Your task to perform on an android device: What's the weather going to be tomorrow? Image 0: 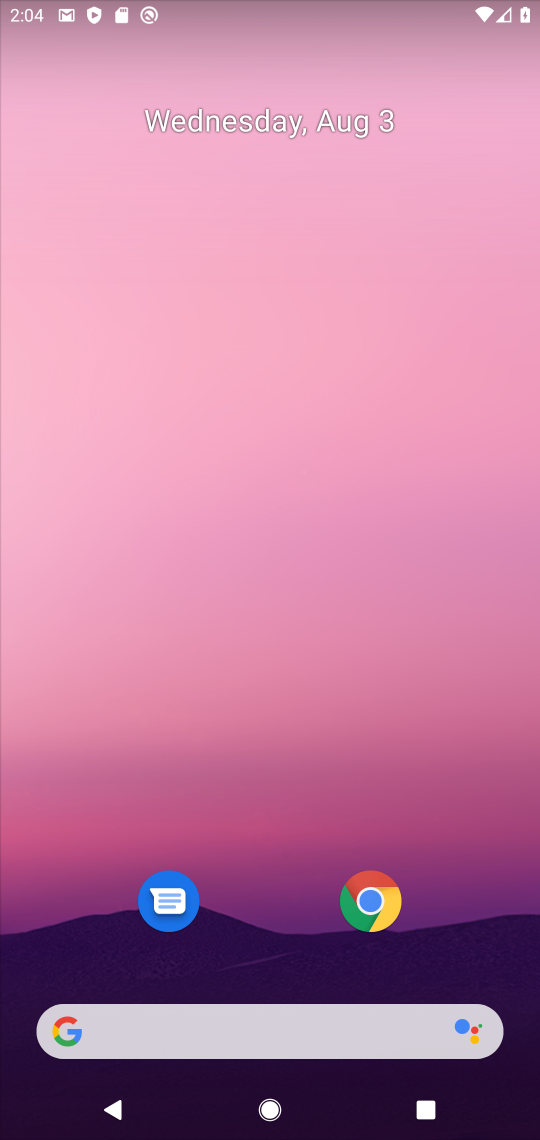
Step 0: drag from (267, 579) to (291, 376)
Your task to perform on an android device: What's the weather going to be tomorrow? Image 1: 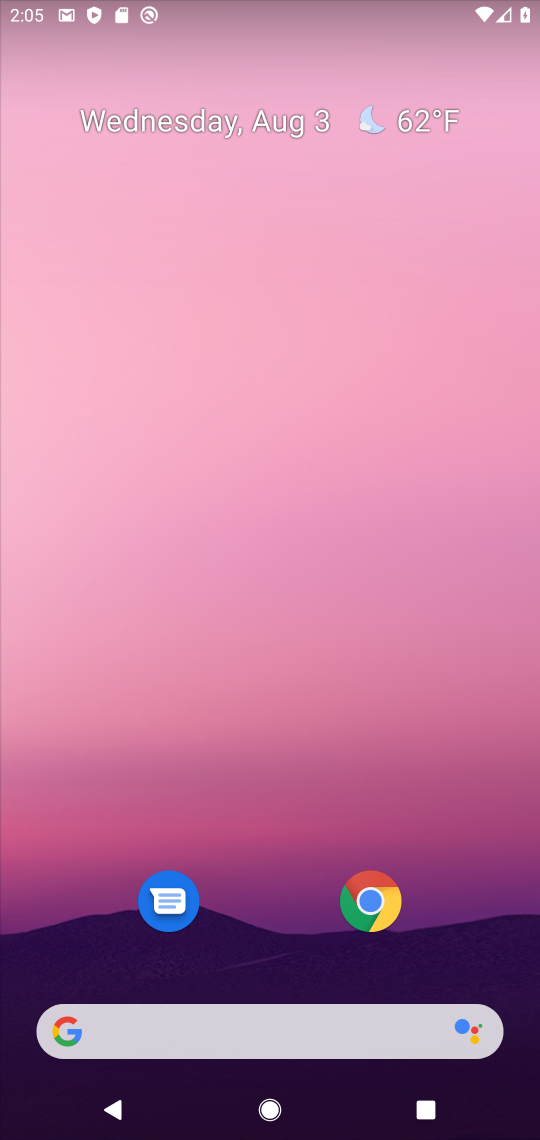
Step 1: click (391, 899)
Your task to perform on an android device: What's the weather going to be tomorrow? Image 2: 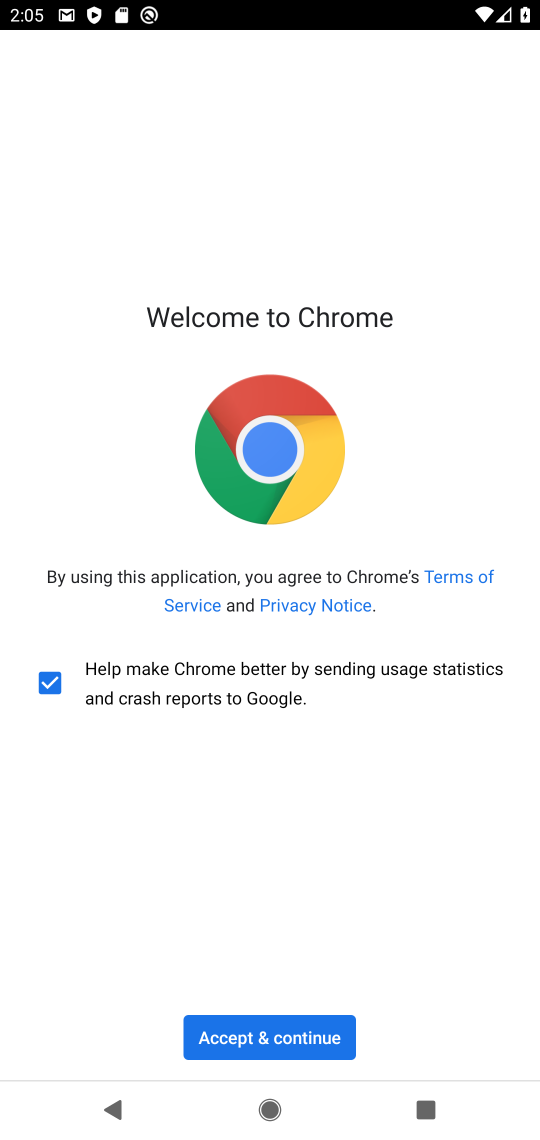
Step 2: click (270, 1028)
Your task to perform on an android device: What's the weather going to be tomorrow? Image 3: 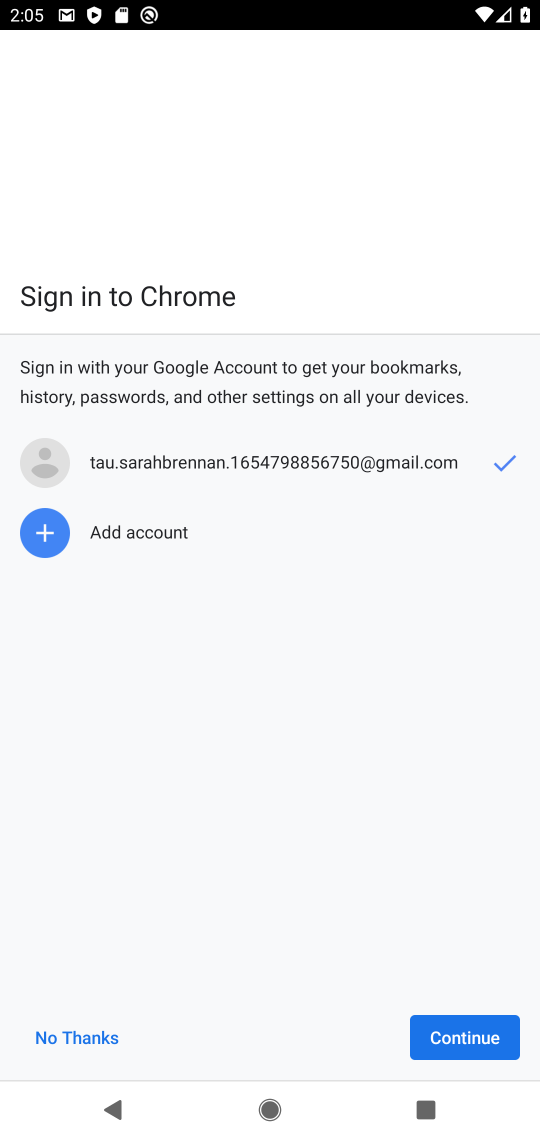
Step 3: click (430, 1024)
Your task to perform on an android device: What's the weather going to be tomorrow? Image 4: 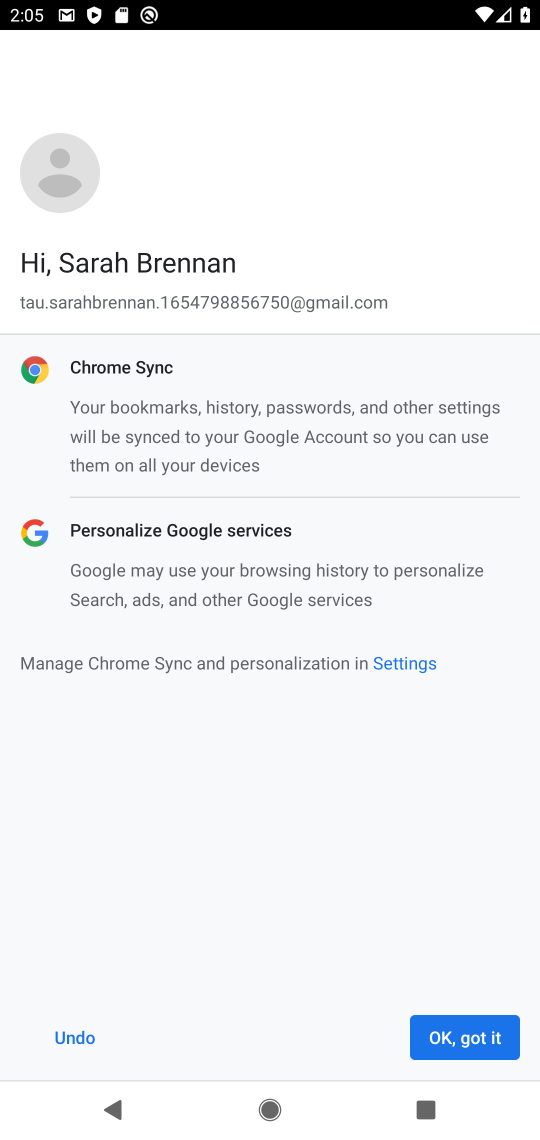
Step 4: click (438, 1034)
Your task to perform on an android device: What's the weather going to be tomorrow? Image 5: 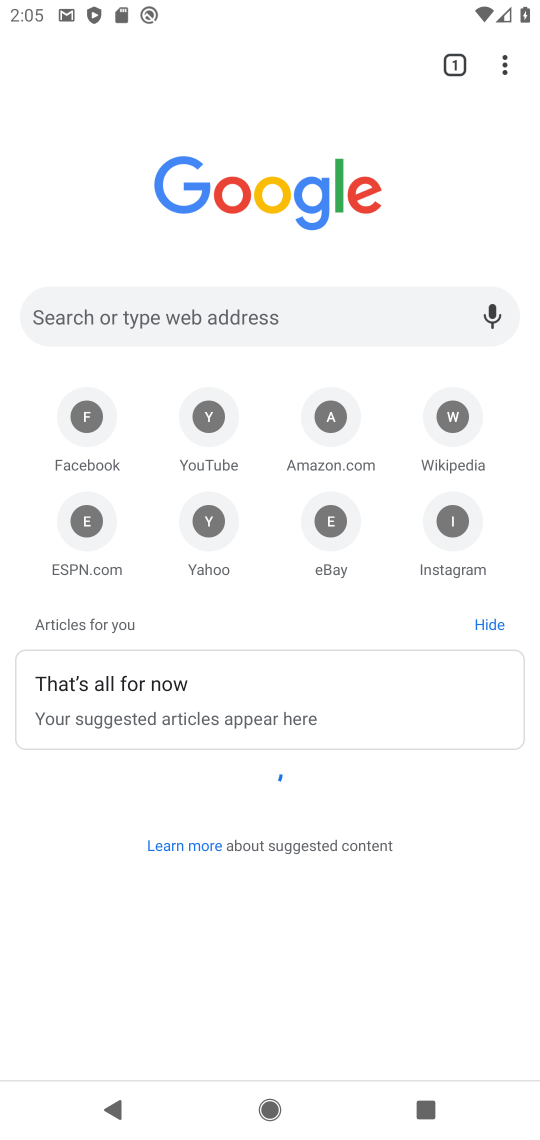
Step 5: click (276, 317)
Your task to perform on an android device: What's the weather going to be tomorrow? Image 6: 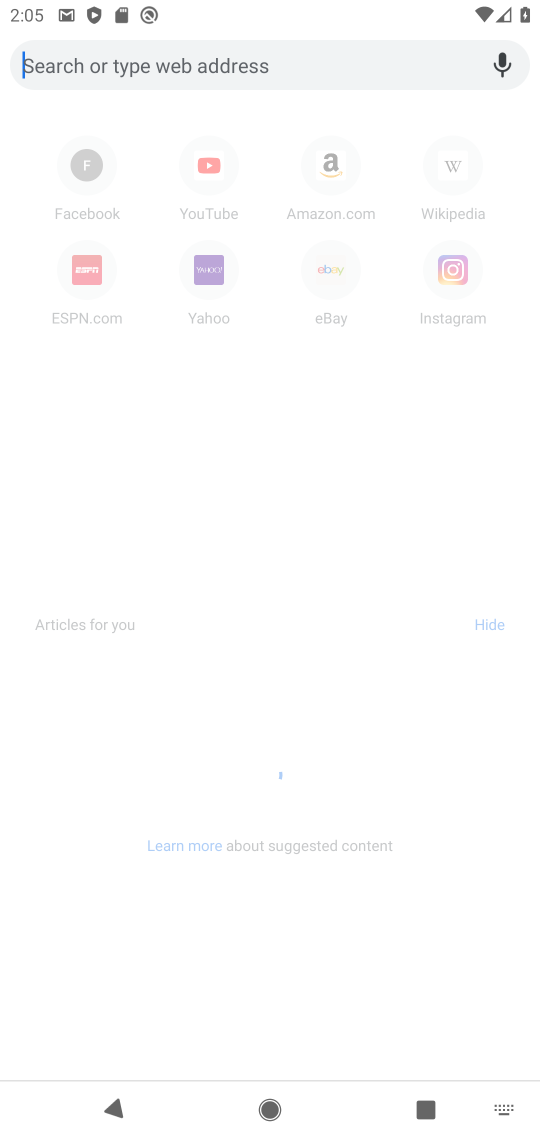
Step 6: type "What's the weather going to be tomorrow? "
Your task to perform on an android device: What's the weather going to be tomorrow? Image 7: 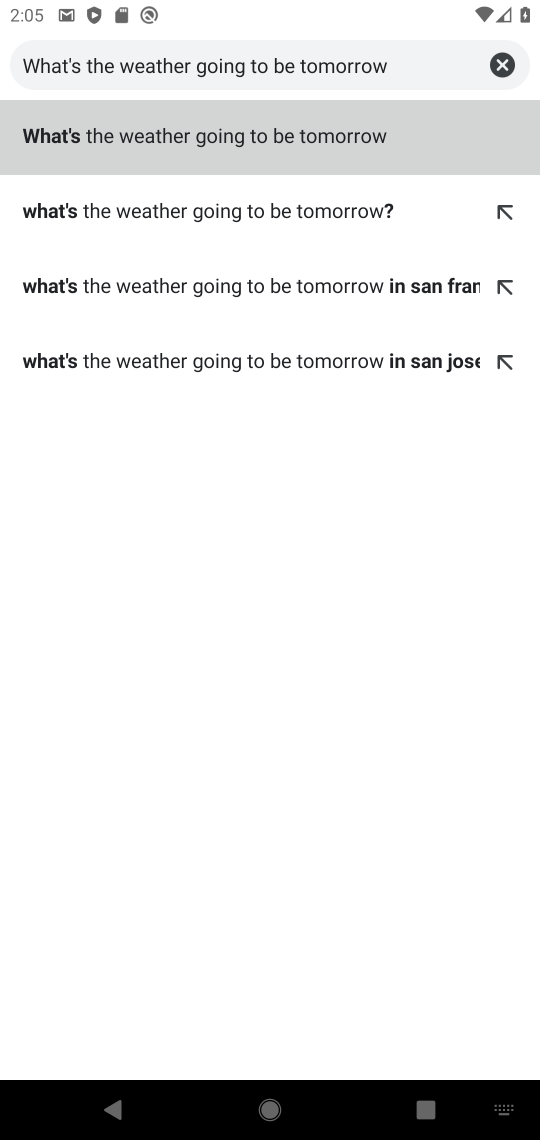
Step 7: click (248, 133)
Your task to perform on an android device: What's the weather going to be tomorrow? Image 8: 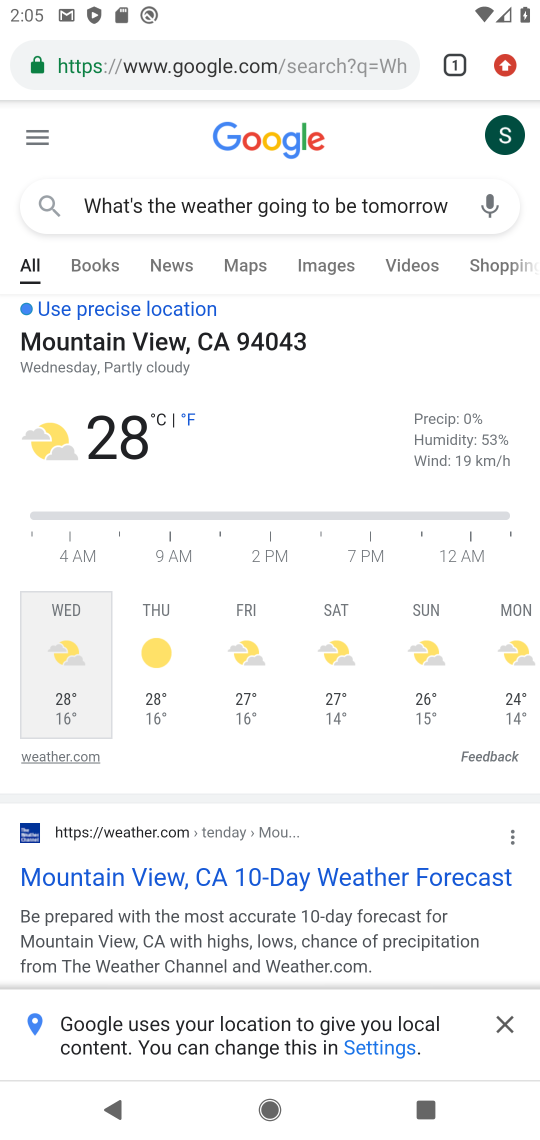
Step 8: task complete